Your task to perform on an android device: move an email to a new category in the gmail app Image 0: 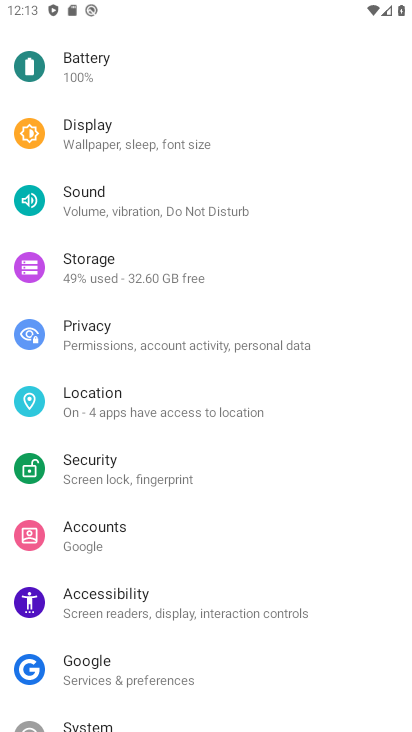
Step 0: press home button
Your task to perform on an android device: move an email to a new category in the gmail app Image 1: 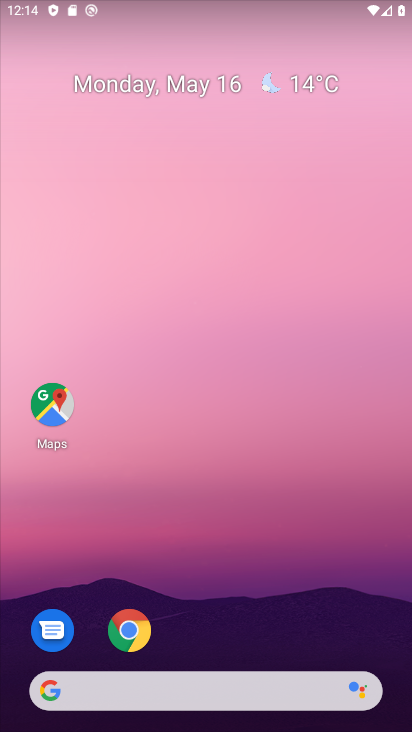
Step 1: drag from (243, 622) to (235, 134)
Your task to perform on an android device: move an email to a new category in the gmail app Image 2: 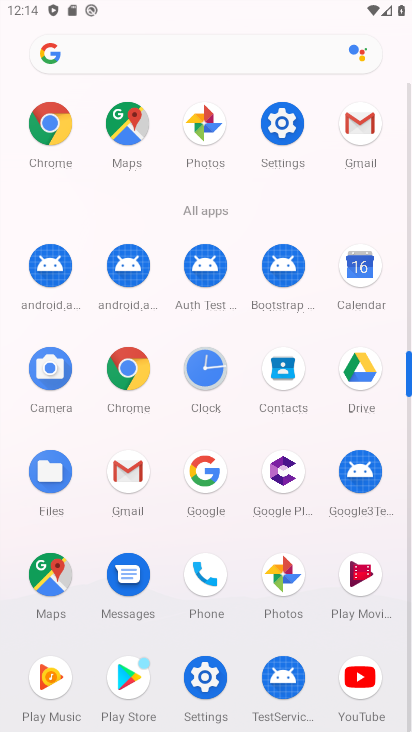
Step 2: click (134, 465)
Your task to perform on an android device: move an email to a new category in the gmail app Image 3: 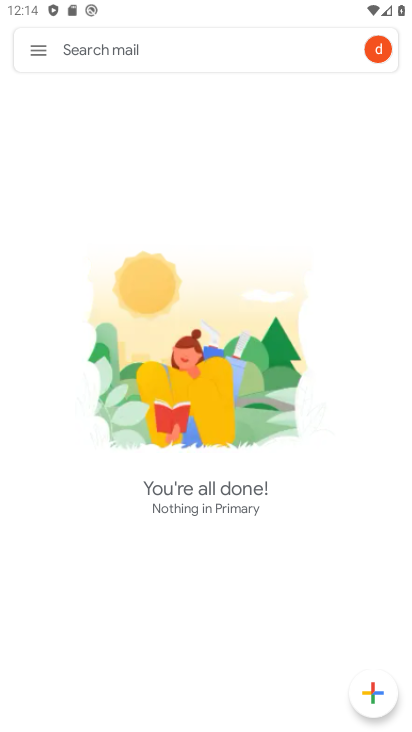
Step 3: click (41, 46)
Your task to perform on an android device: move an email to a new category in the gmail app Image 4: 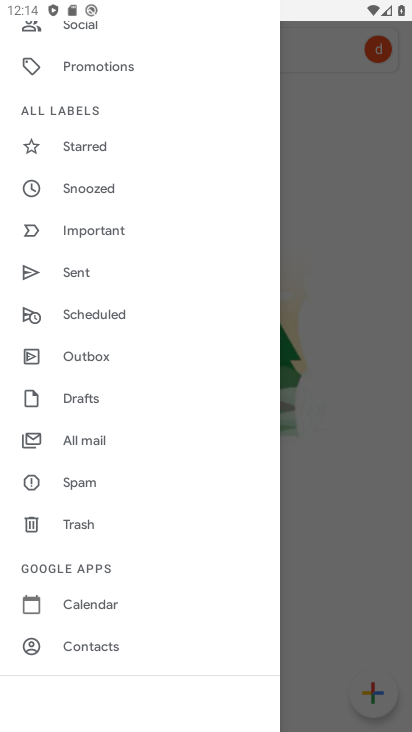
Step 4: task complete